Your task to perform on an android device: add a contact Image 0: 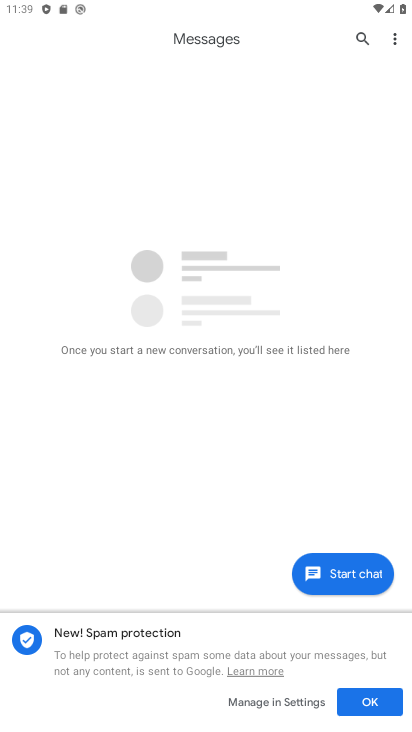
Step 0: press home button
Your task to perform on an android device: add a contact Image 1: 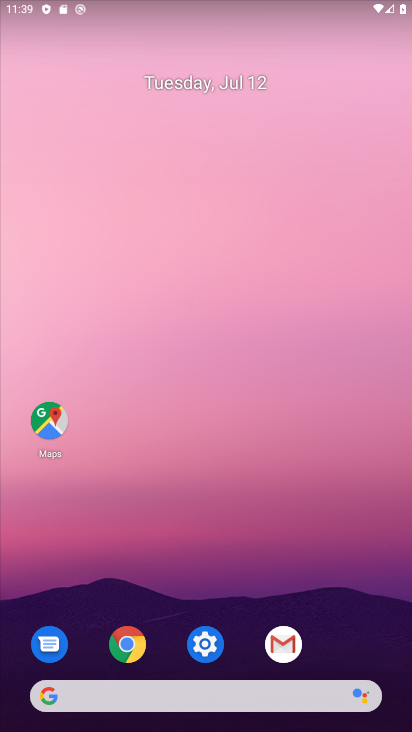
Step 1: drag from (252, 685) to (329, 268)
Your task to perform on an android device: add a contact Image 2: 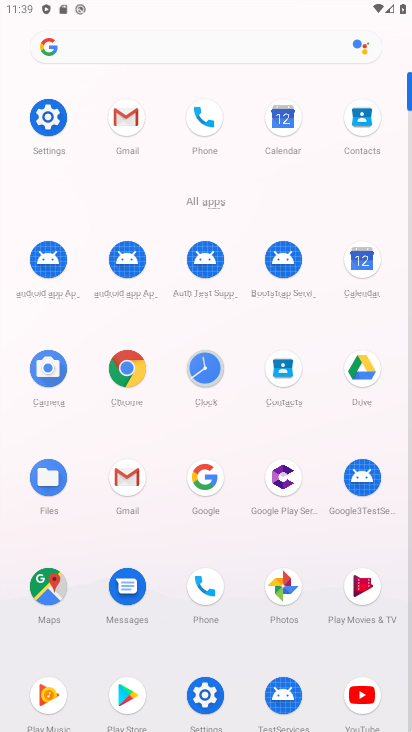
Step 2: click (202, 129)
Your task to perform on an android device: add a contact Image 3: 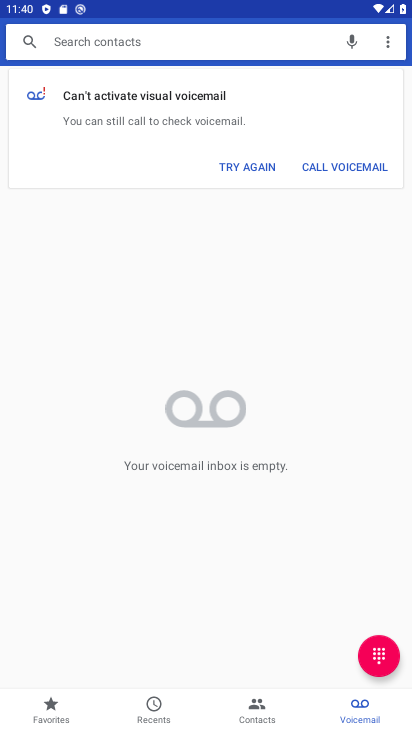
Step 3: click (268, 706)
Your task to perform on an android device: add a contact Image 4: 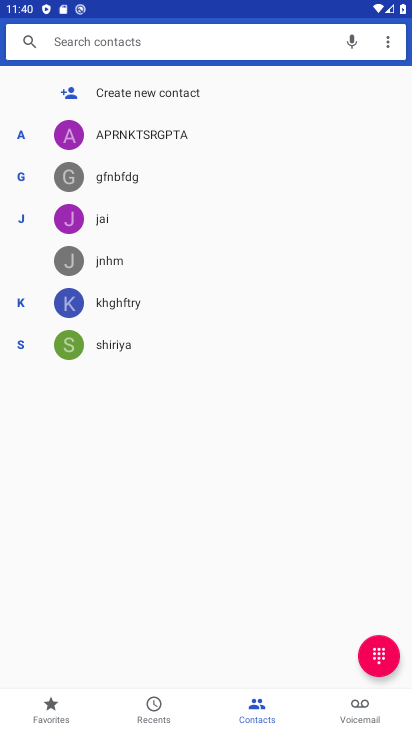
Step 4: click (131, 97)
Your task to perform on an android device: add a contact Image 5: 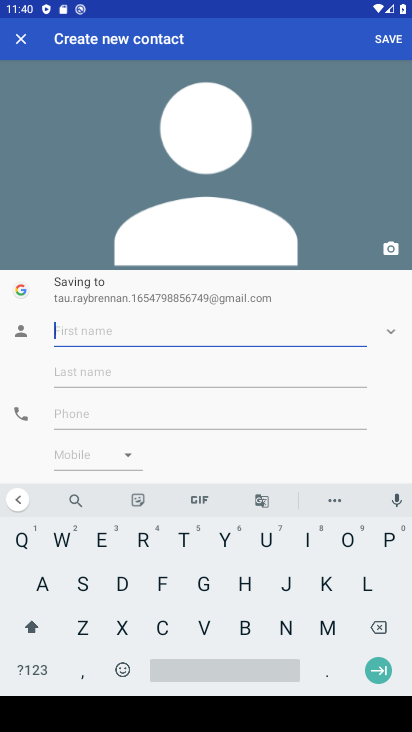
Step 5: click (164, 579)
Your task to perform on an android device: add a contact Image 6: 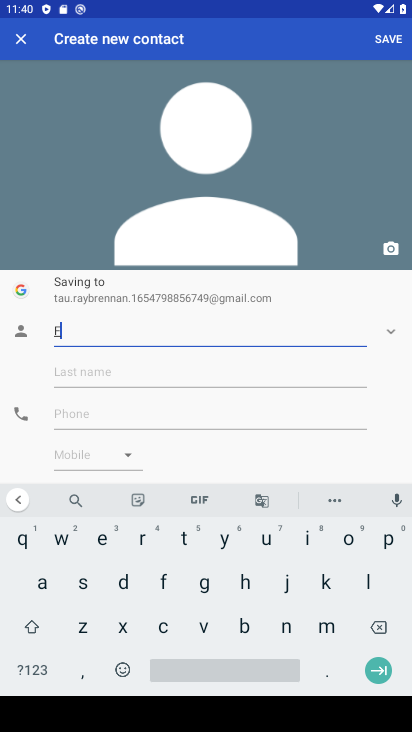
Step 6: click (102, 589)
Your task to perform on an android device: add a contact Image 7: 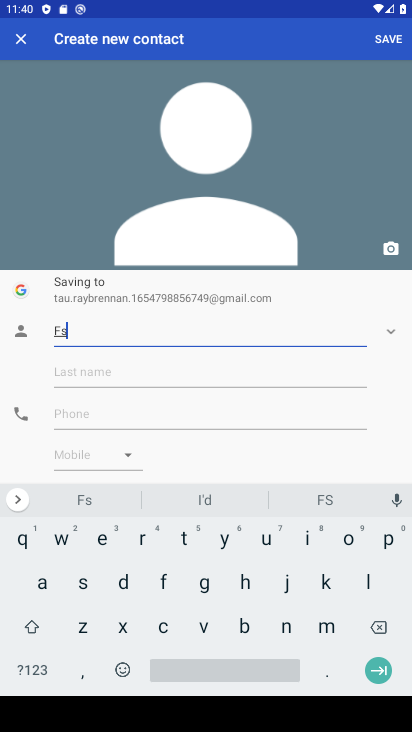
Step 7: click (110, 415)
Your task to perform on an android device: add a contact Image 8: 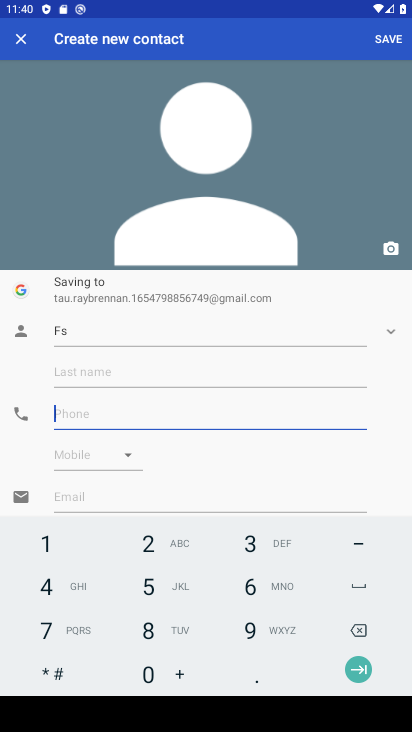
Step 8: click (147, 554)
Your task to perform on an android device: add a contact Image 9: 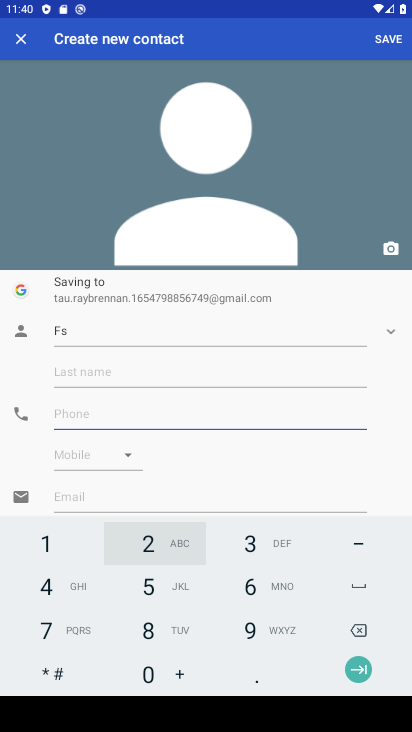
Step 9: click (146, 580)
Your task to perform on an android device: add a contact Image 10: 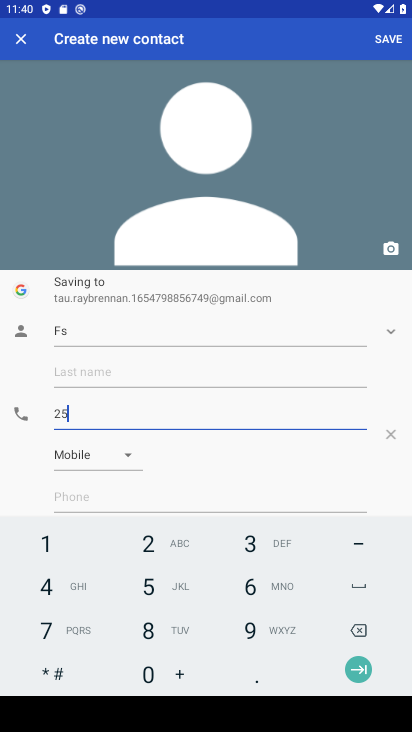
Step 10: click (55, 591)
Your task to perform on an android device: add a contact Image 11: 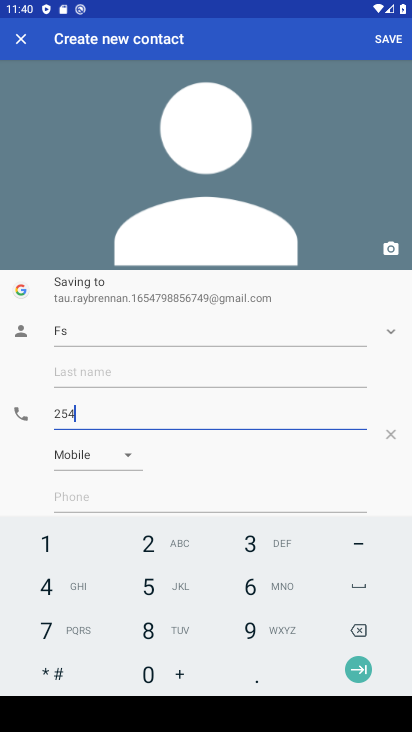
Step 11: click (158, 621)
Your task to perform on an android device: add a contact Image 12: 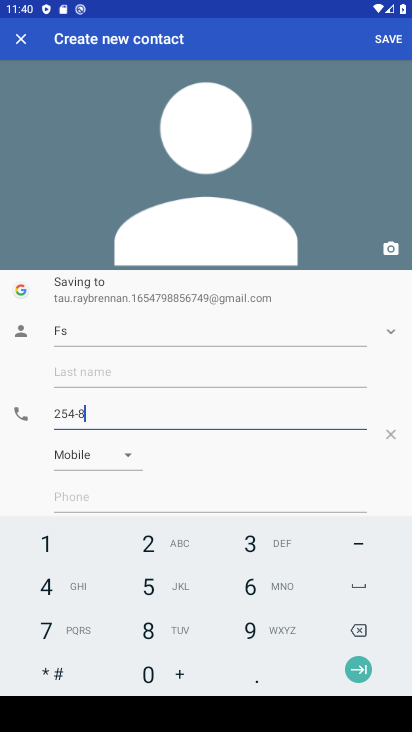
Step 12: click (282, 537)
Your task to perform on an android device: add a contact Image 13: 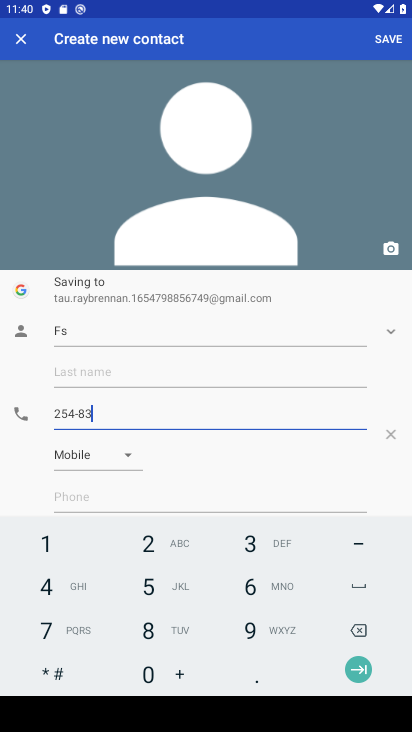
Step 13: click (256, 574)
Your task to perform on an android device: add a contact Image 14: 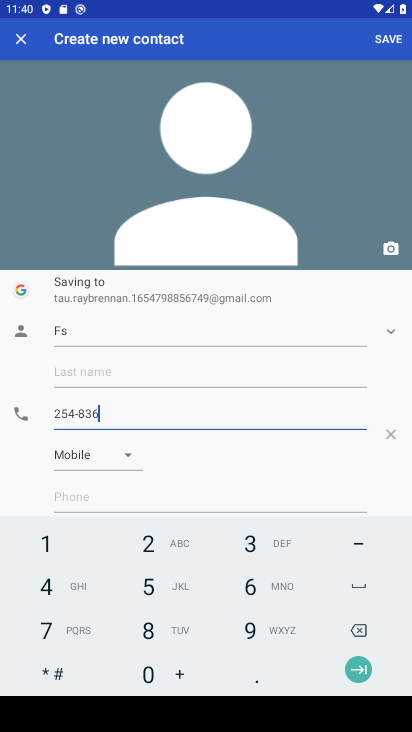
Step 14: click (392, 40)
Your task to perform on an android device: add a contact Image 15: 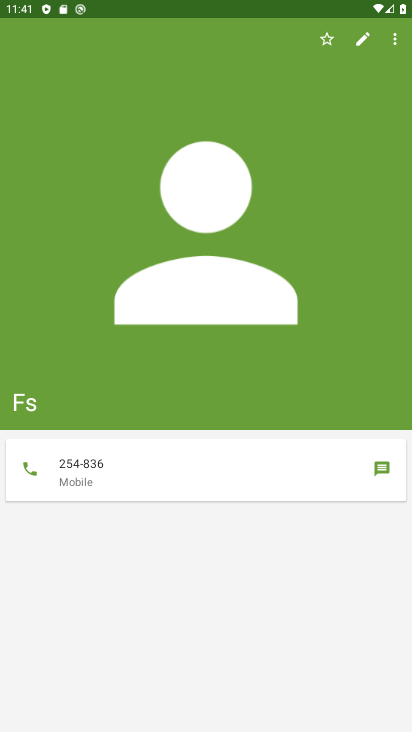
Step 15: task complete